Your task to perform on an android device: open the mobile data screen to see how much data has been used Image 0: 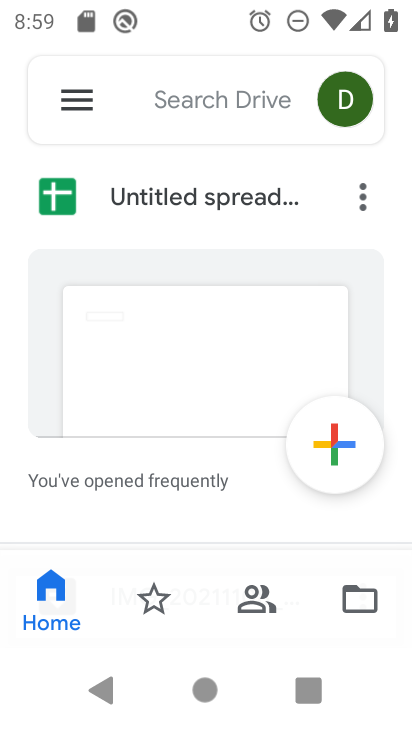
Step 0: press home button
Your task to perform on an android device: open the mobile data screen to see how much data has been used Image 1: 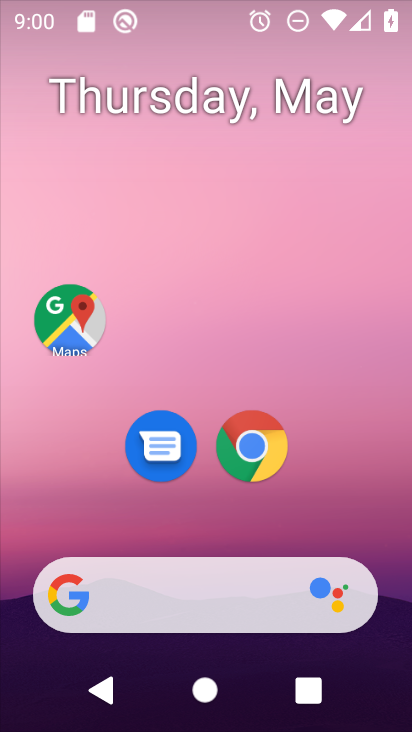
Step 1: drag from (371, 411) to (362, 114)
Your task to perform on an android device: open the mobile data screen to see how much data has been used Image 2: 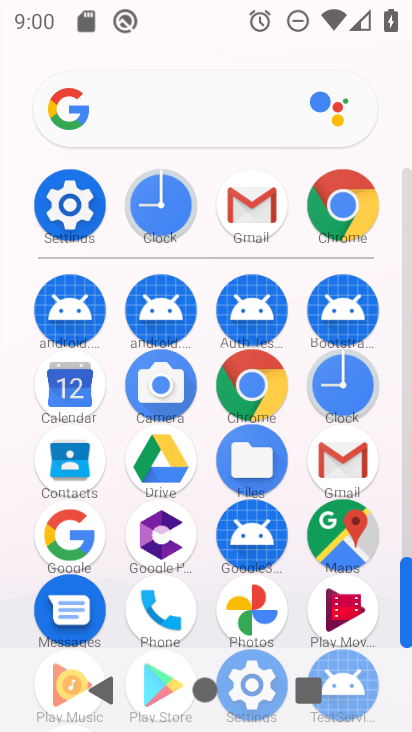
Step 2: click (84, 209)
Your task to perform on an android device: open the mobile data screen to see how much data has been used Image 3: 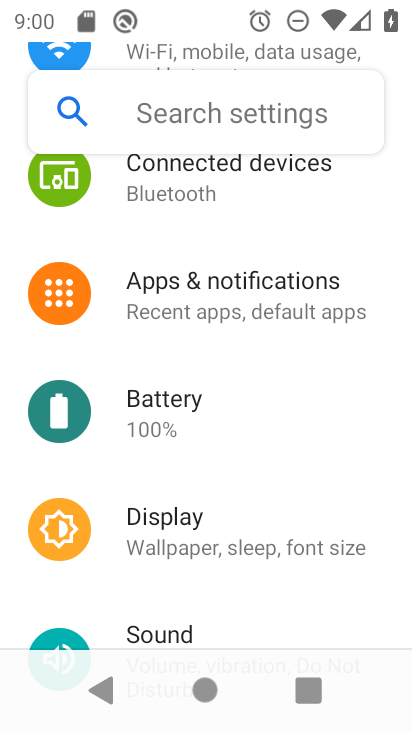
Step 3: drag from (273, 241) to (279, 588)
Your task to perform on an android device: open the mobile data screen to see how much data has been used Image 4: 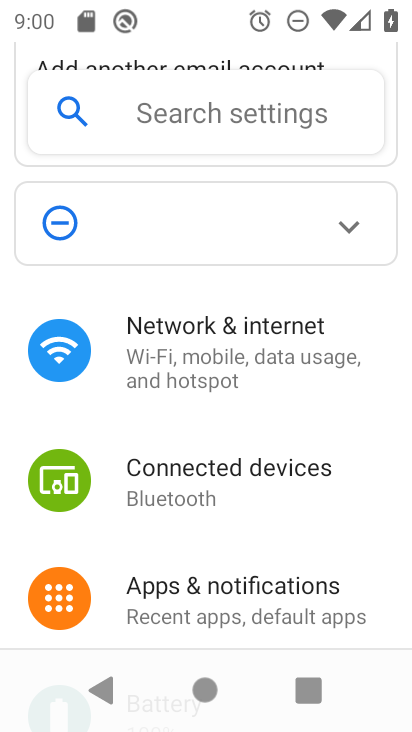
Step 4: click (281, 362)
Your task to perform on an android device: open the mobile data screen to see how much data has been used Image 5: 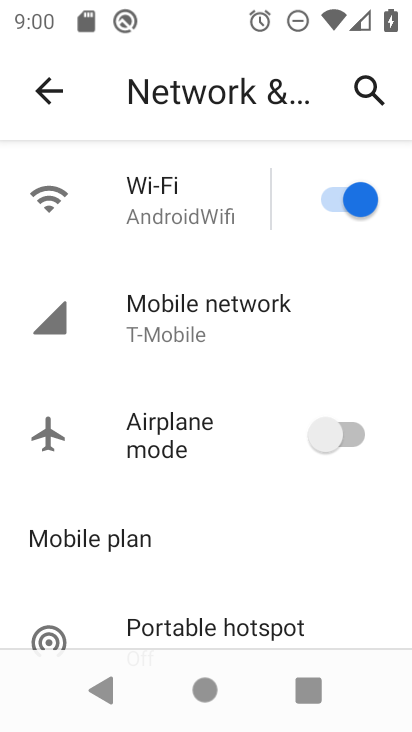
Step 5: click (200, 337)
Your task to perform on an android device: open the mobile data screen to see how much data has been used Image 6: 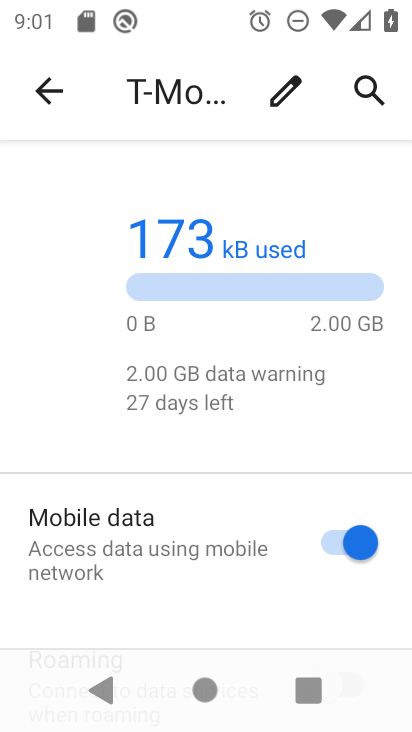
Step 6: task complete